Your task to perform on an android device: Open network settings Image 0: 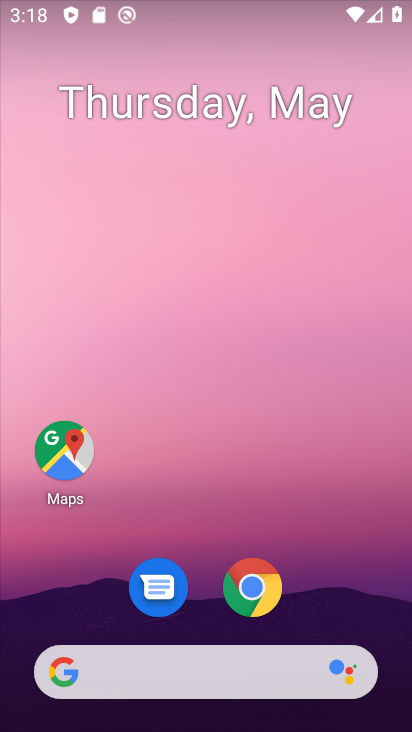
Step 0: drag from (240, 724) to (242, 204)
Your task to perform on an android device: Open network settings Image 1: 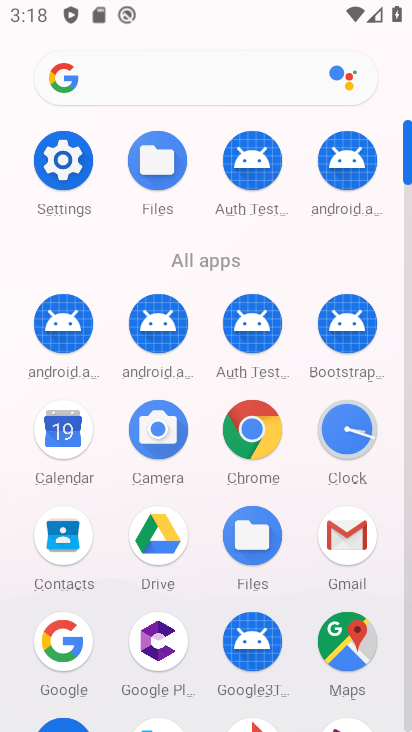
Step 1: click (69, 158)
Your task to perform on an android device: Open network settings Image 2: 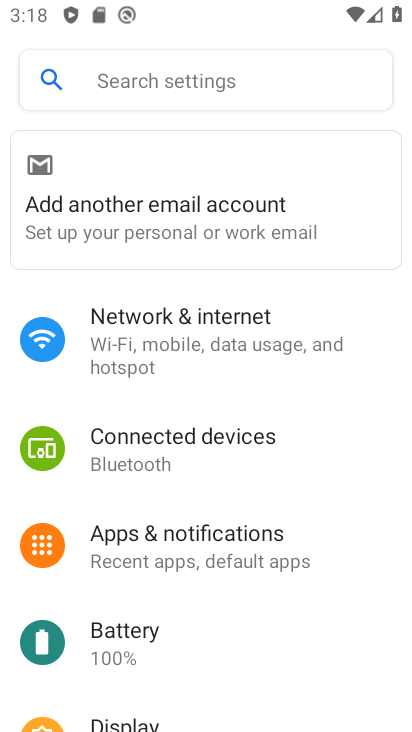
Step 2: click (171, 307)
Your task to perform on an android device: Open network settings Image 3: 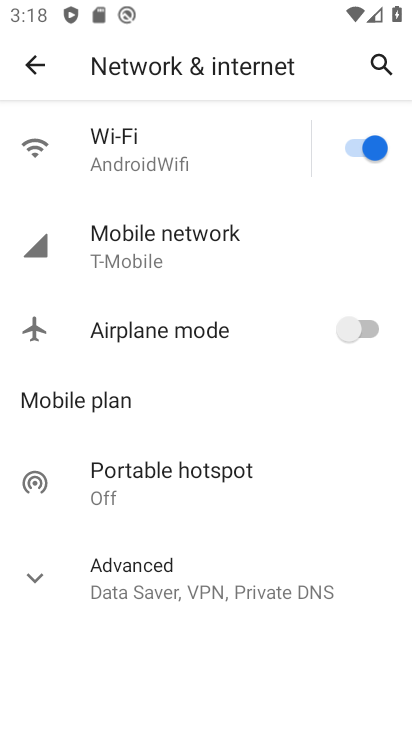
Step 3: click (105, 244)
Your task to perform on an android device: Open network settings Image 4: 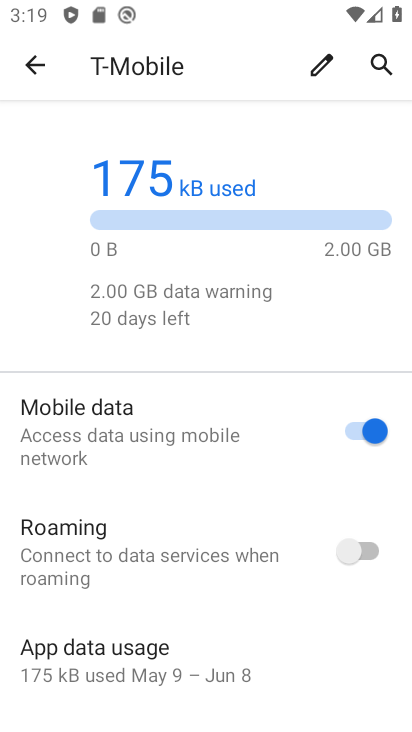
Step 4: task complete